Your task to perform on an android device: Open the calendar app, open the side menu, and click the "Day" option Image 0: 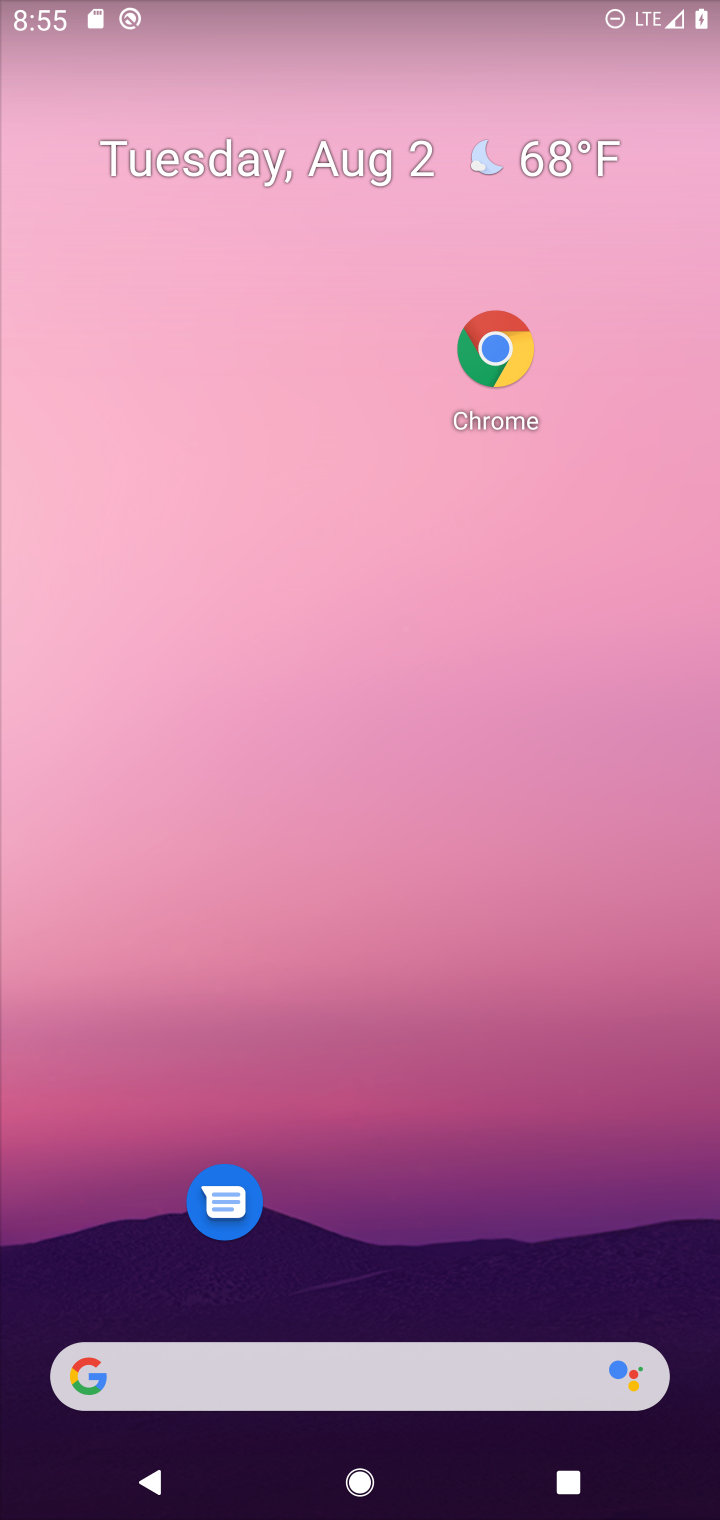
Step 0: drag from (380, 1106) to (313, 107)
Your task to perform on an android device: Open the calendar app, open the side menu, and click the "Day" option Image 1: 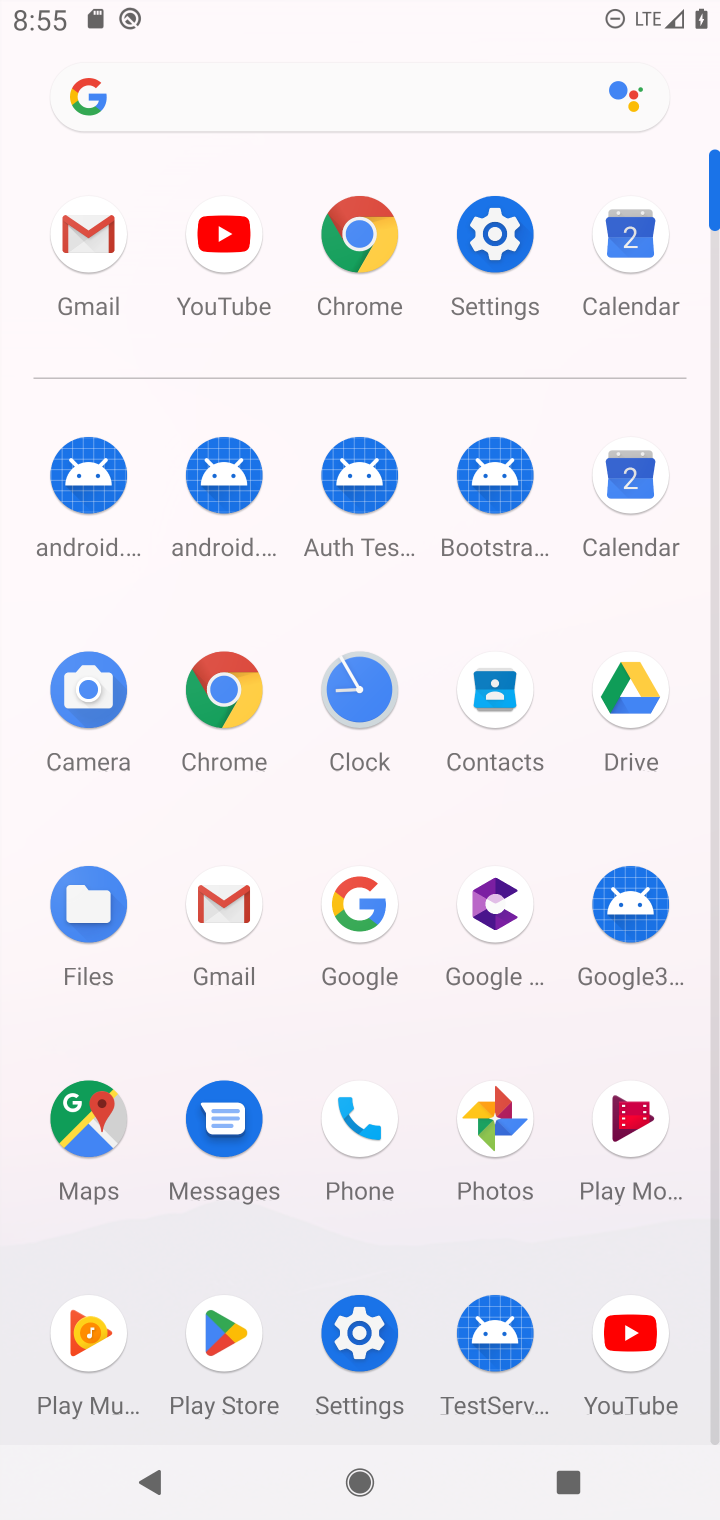
Step 1: click (625, 246)
Your task to perform on an android device: Open the calendar app, open the side menu, and click the "Day" option Image 2: 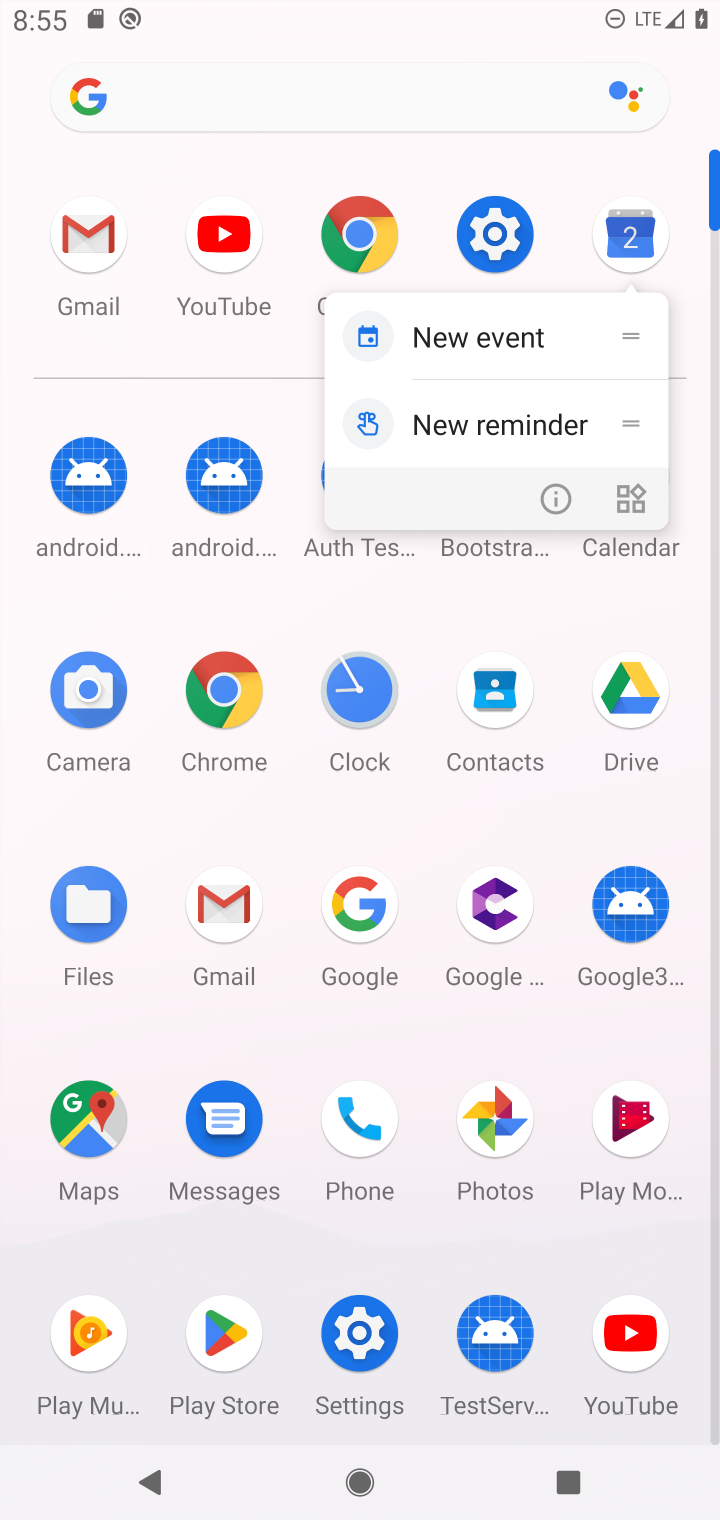
Step 2: click (625, 246)
Your task to perform on an android device: Open the calendar app, open the side menu, and click the "Day" option Image 3: 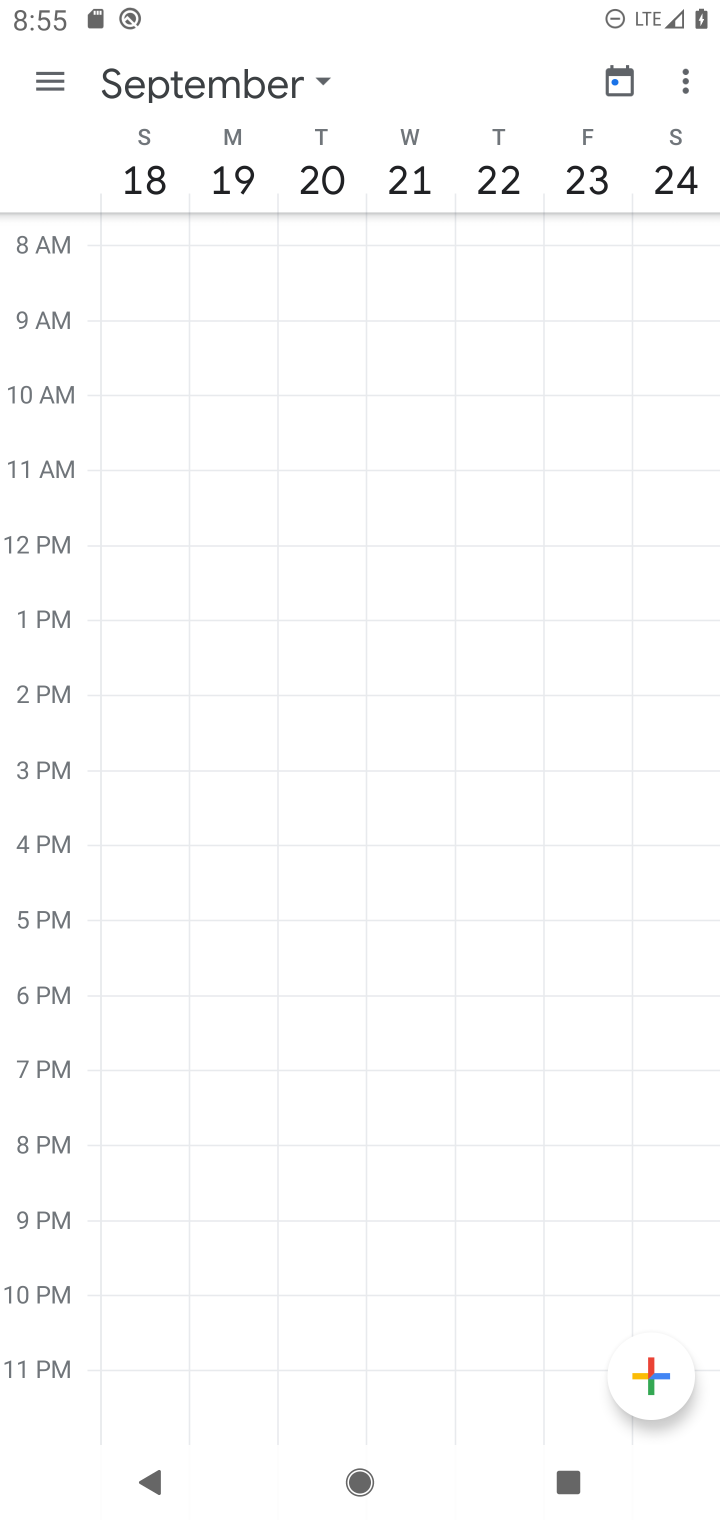
Step 3: click (47, 88)
Your task to perform on an android device: Open the calendar app, open the side menu, and click the "Day" option Image 4: 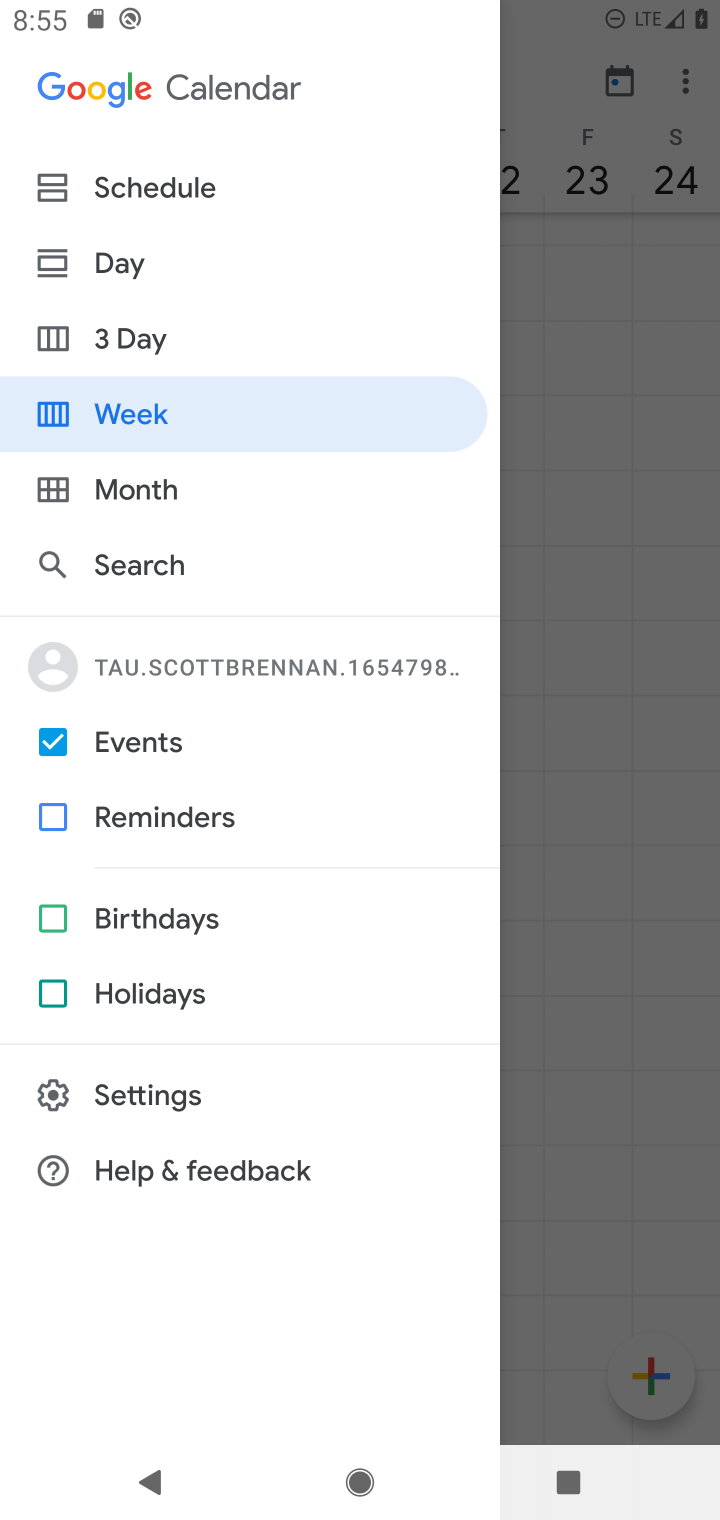
Step 4: click (103, 253)
Your task to perform on an android device: Open the calendar app, open the side menu, and click the "Day" option Image 5: 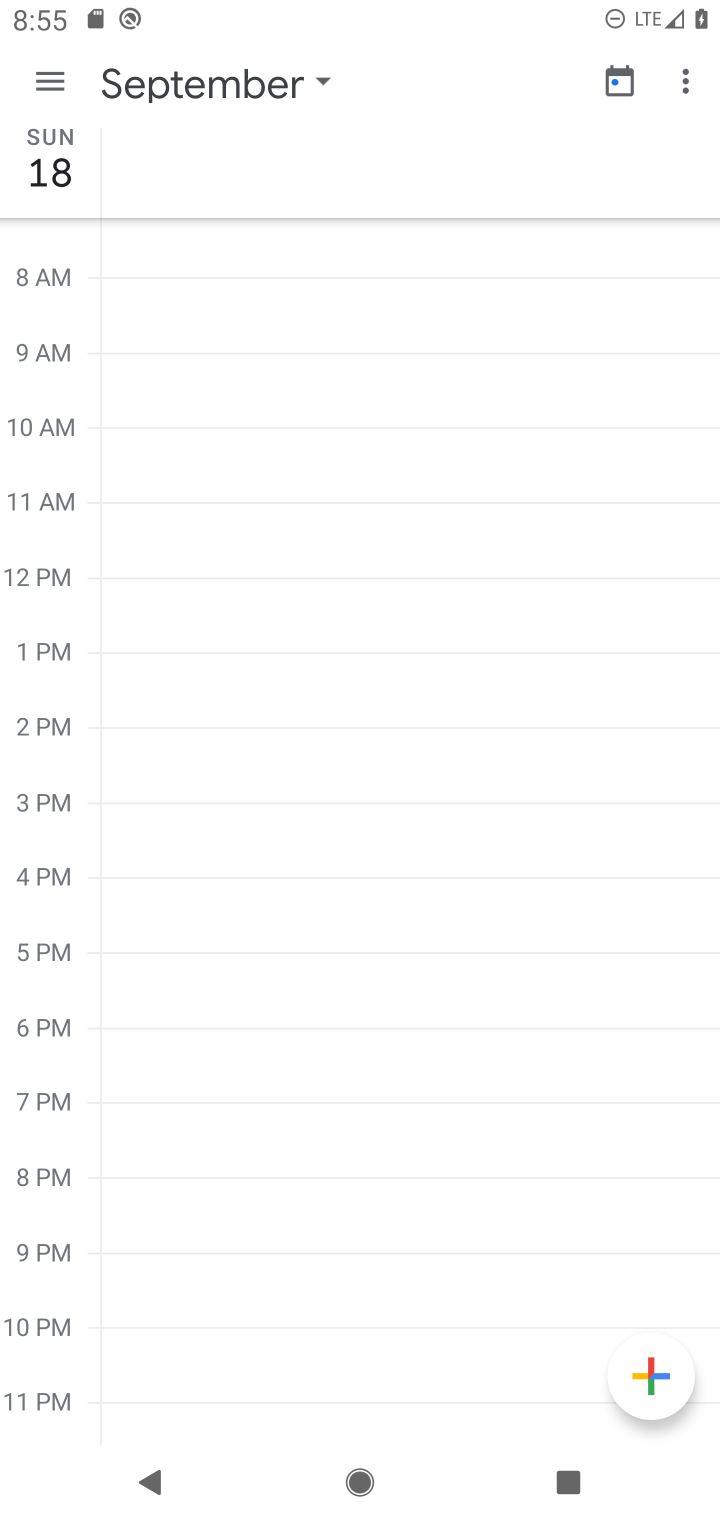
Step 5: task complete